Your task to perform on an android device: Search for Mexican restaurants on Maps Image 0: 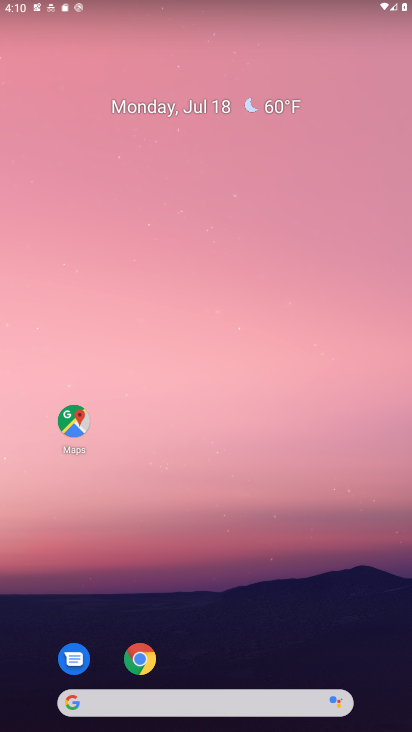
Step 0: drag from (226, 696) to (383, 8)
Your task to perform on an android device: Search for Mexican restaurants on Maps Image 1: 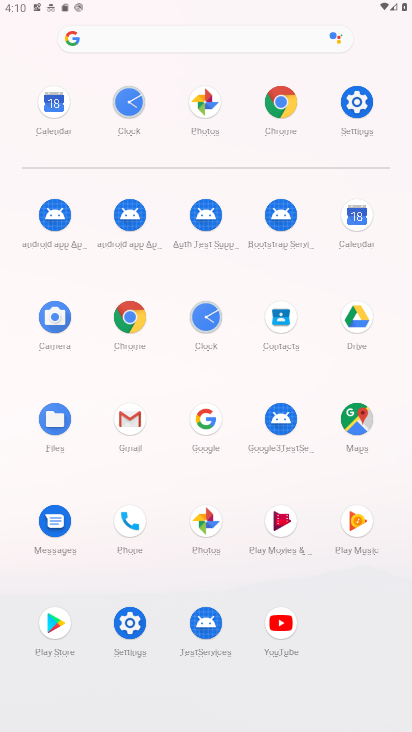
Step 1: click (359, 426)
Your task to perform on an android device: Search for Mexican restaurants on Maps Image 2: 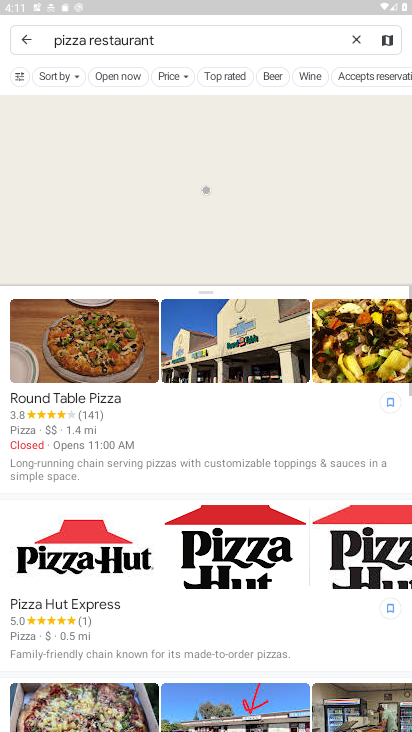
Step 2: press back button
Your task to perform on an android device: Search for Mexican restaurants on Maps Image 3: 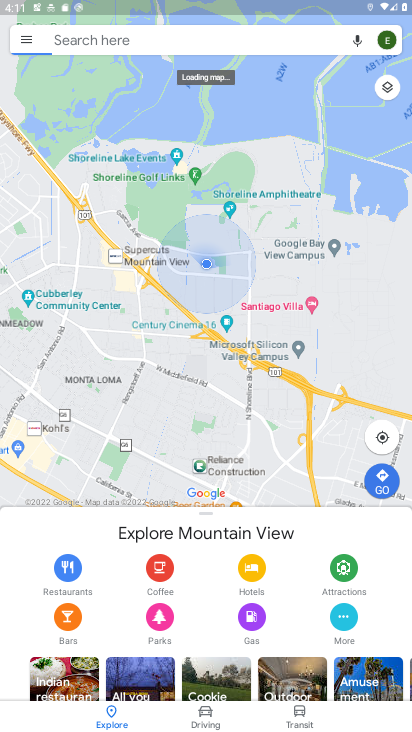
Step 3: click (245, 44)
Your task to perform on an android device: Search for Mexican restaurants on Maps Image 4: 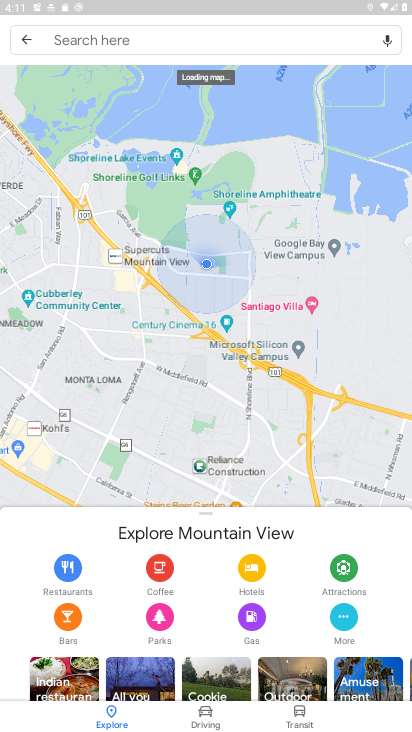
Step 4: click (238, 47)
Your task to perform on an android device: Search for Mexican restaurants on Maps Image 5: 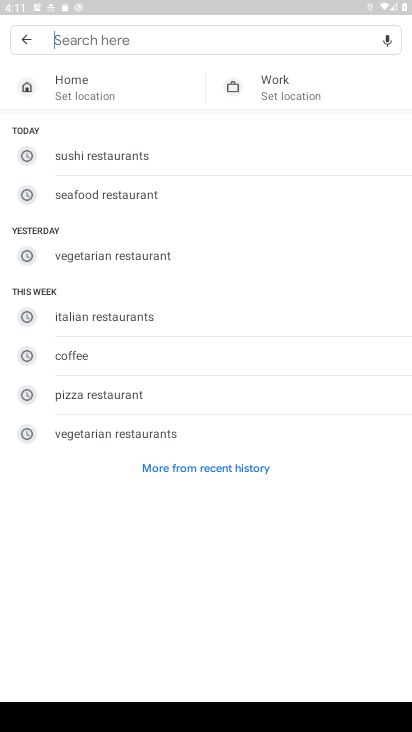
Step 5: type "mexican restaurany"
Your task to perform on an android device: Search for Mexican restaurants on Maps Image 6: 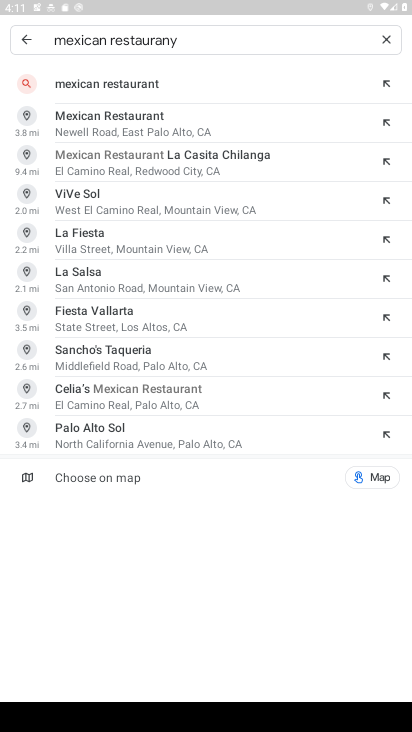
Step 6: click (168, 87)
Your task to perform on an android device: Search for Mexican restaurants on Maps Image 7: 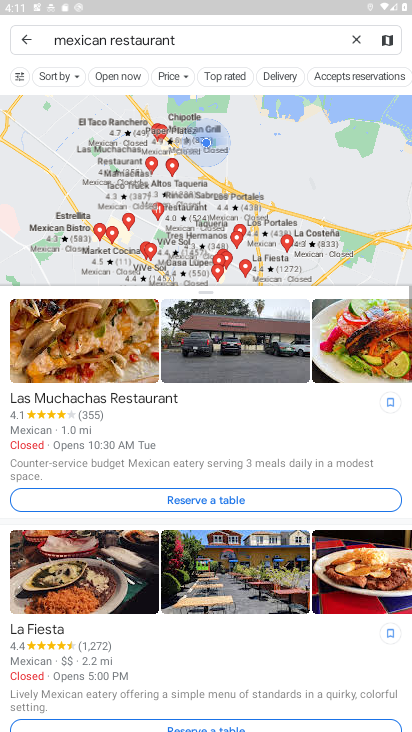
Step 7: task complete